Your task to perform on an android device: open app "Spotify: Music and Podcasts" (install if not already installed) Image 0: 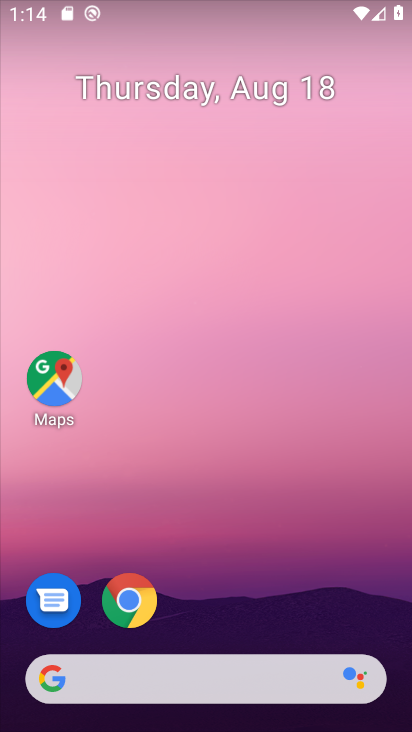
Step 0: drag from (296, 591) to (155, 159)
Your task to perform on an android device: open app "Spotify: Music and Podcasts" (install if not already installed) Image 1: 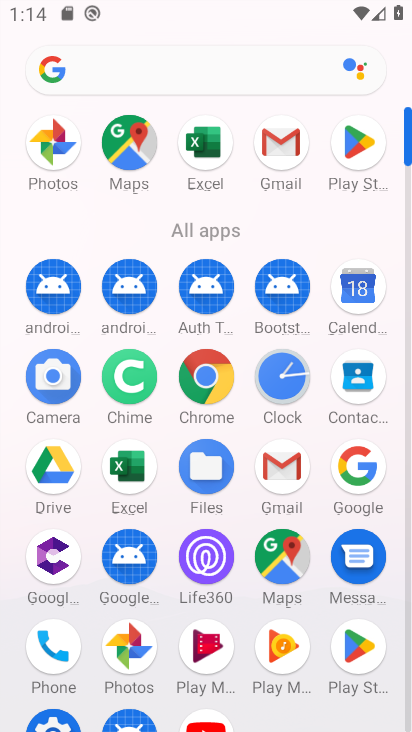
Step 1: click (339, 643)
Your task to perform on an android device: open app "Spotify: Music and Podcasts" (install if not already installed) Image 2: 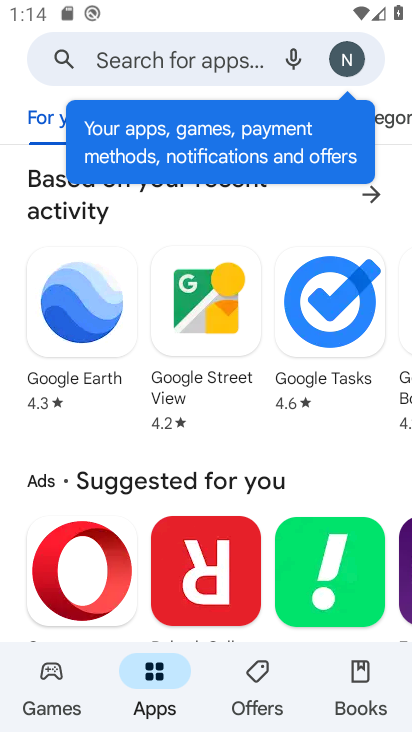
Step 2: click (205, 59)
Your task to perform on an android device: open app "Spotify: Music and Podcasts" (install if not already installed) Image 3: 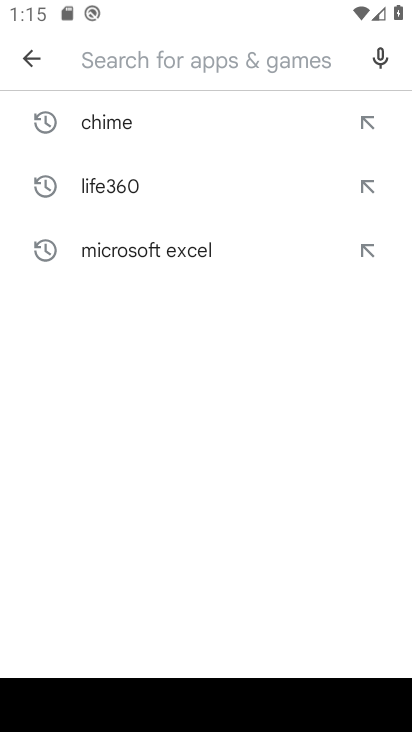
Step 3: type "spotify"
Your task to perform on an android device: open app "Spotify: Music and Podcasts" (install if not already installed) Image 4: 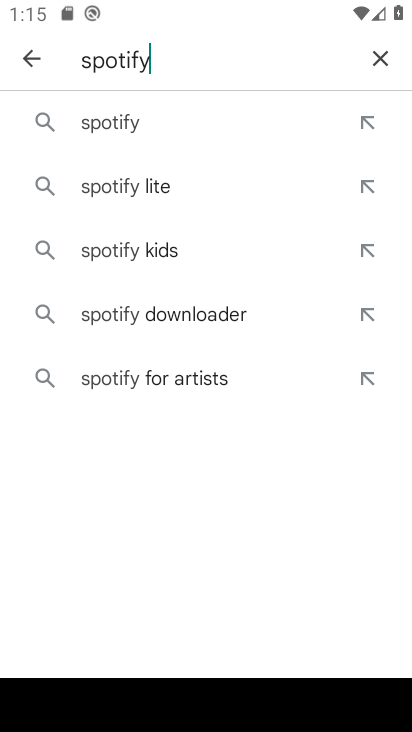
Step 4: click (196, 123)
Your task to perform on an android device: open app "Spotify: Music and Podcasts" (install if not already installed) Image 5: 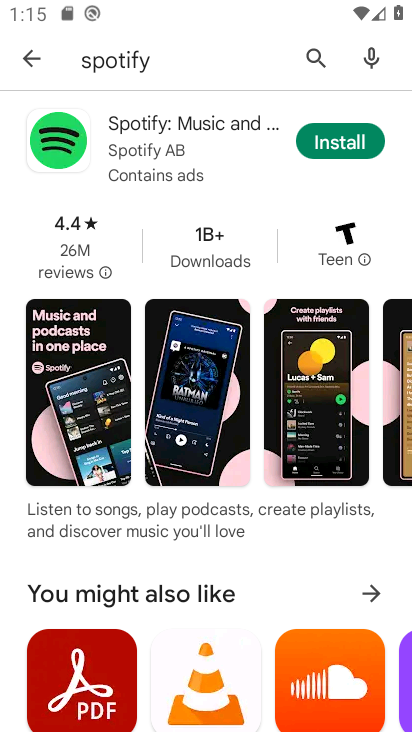
Step 5: click (372, 129)
Your task to perform on an android device: open app "Spotify: Music and Podcasts" (install if not already installed) Image 6: 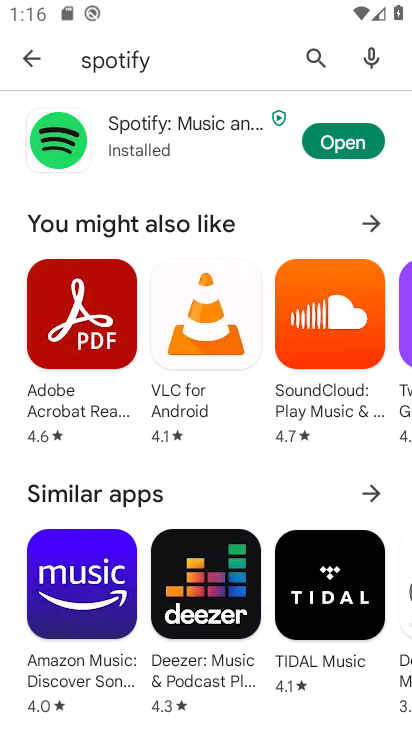
Step 6: click (361, 142)
Your task to perform on an android device: open app "Spotify: Music and Podcasts" (install if not already installed) Image 7: 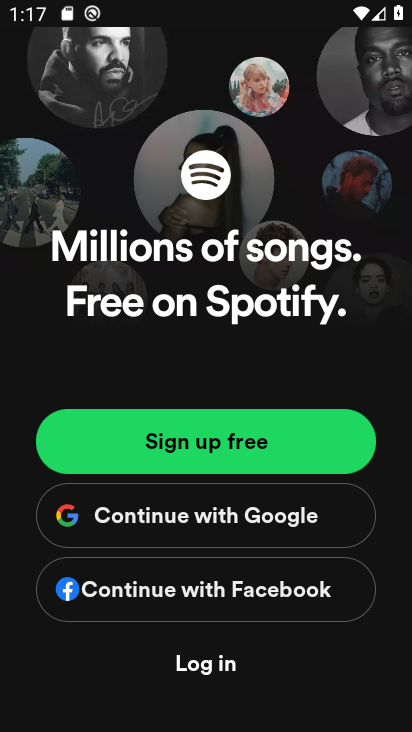
Step 7: task complete